Your task to perform on an android device: uninstall "Adobe Express: Graphic Design" Image 0: 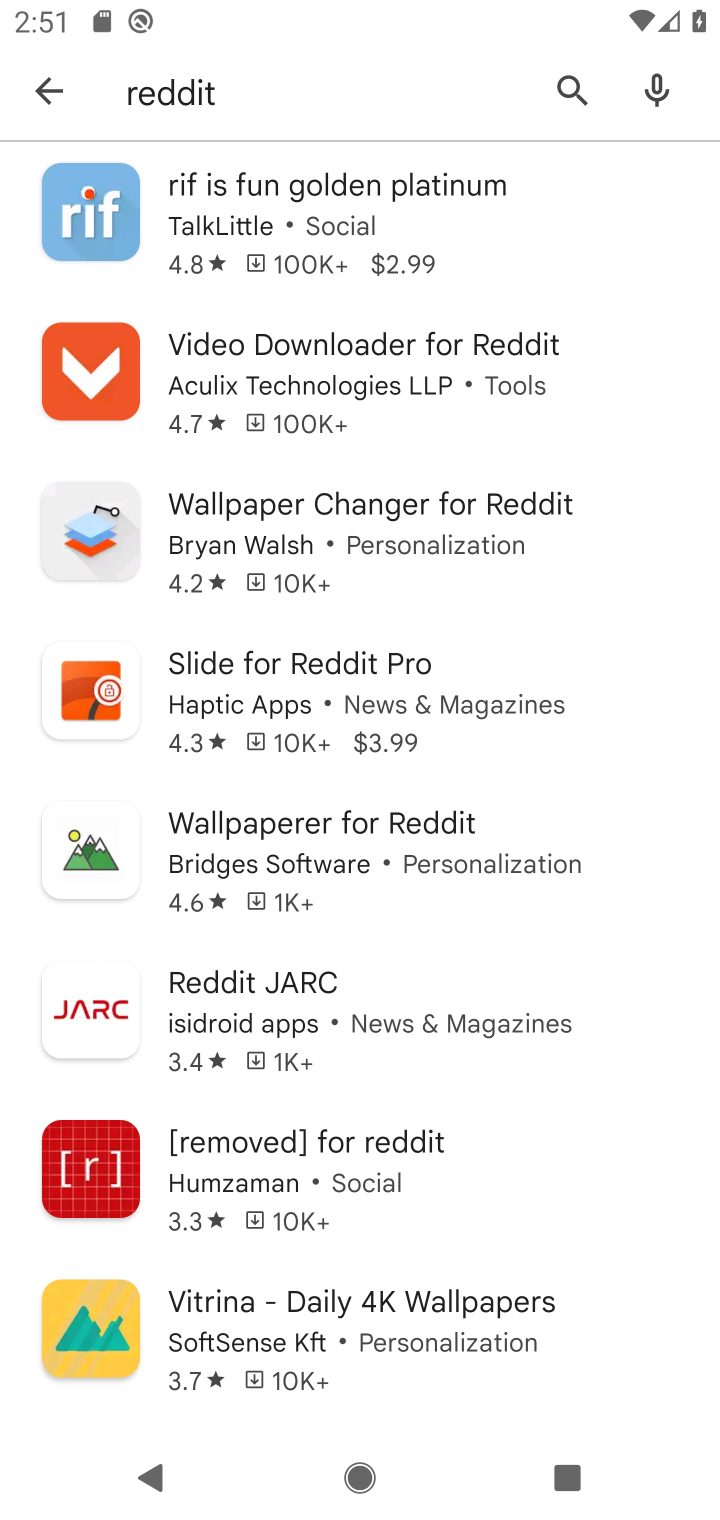
Step 0: drag from (438, 1499) to (561, 1472)
Your task to perform on an android device: uninstall "Adobe Express: Graphic Design" Image 1: 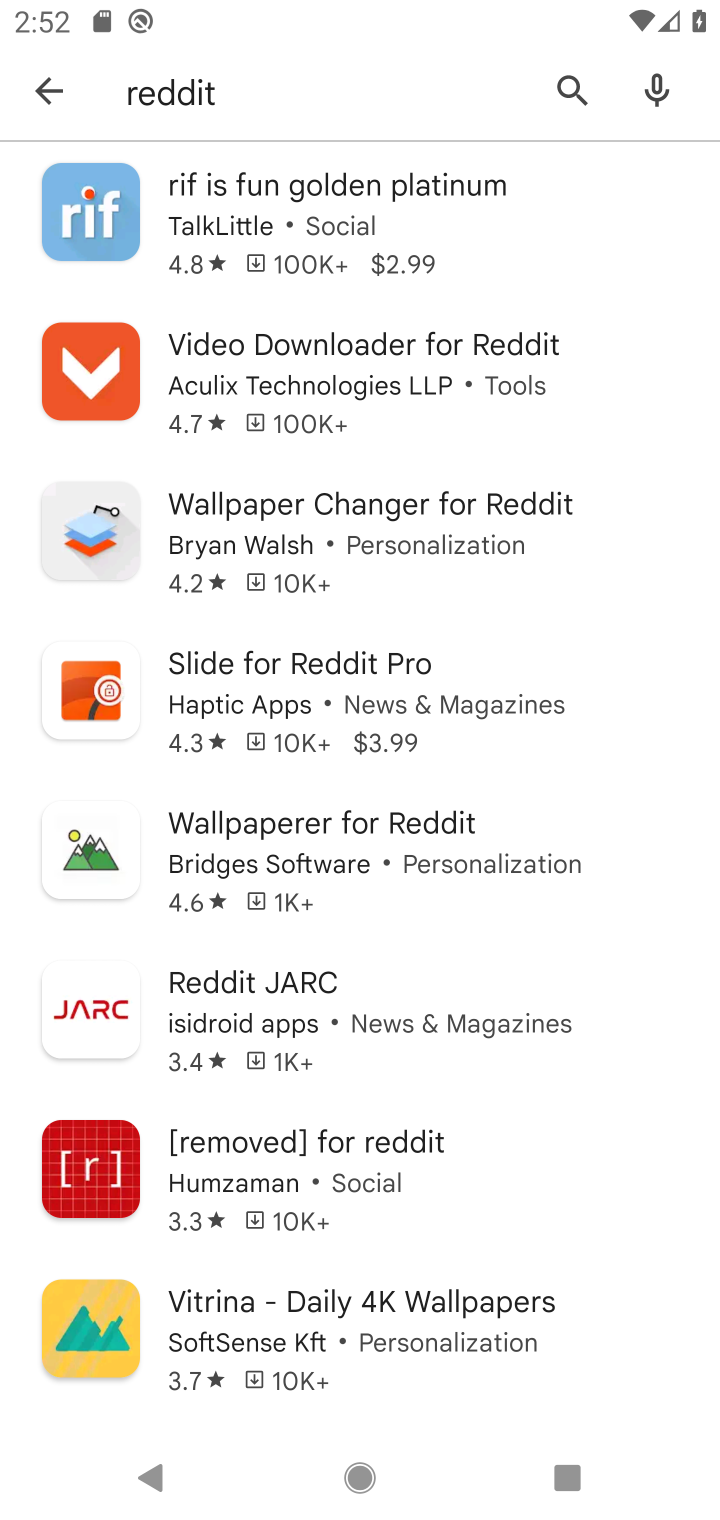
Step 1: click (573, 90)
Your task to perform on an android device: uninstall "Adobe Express: Graphic Design" Image 2: 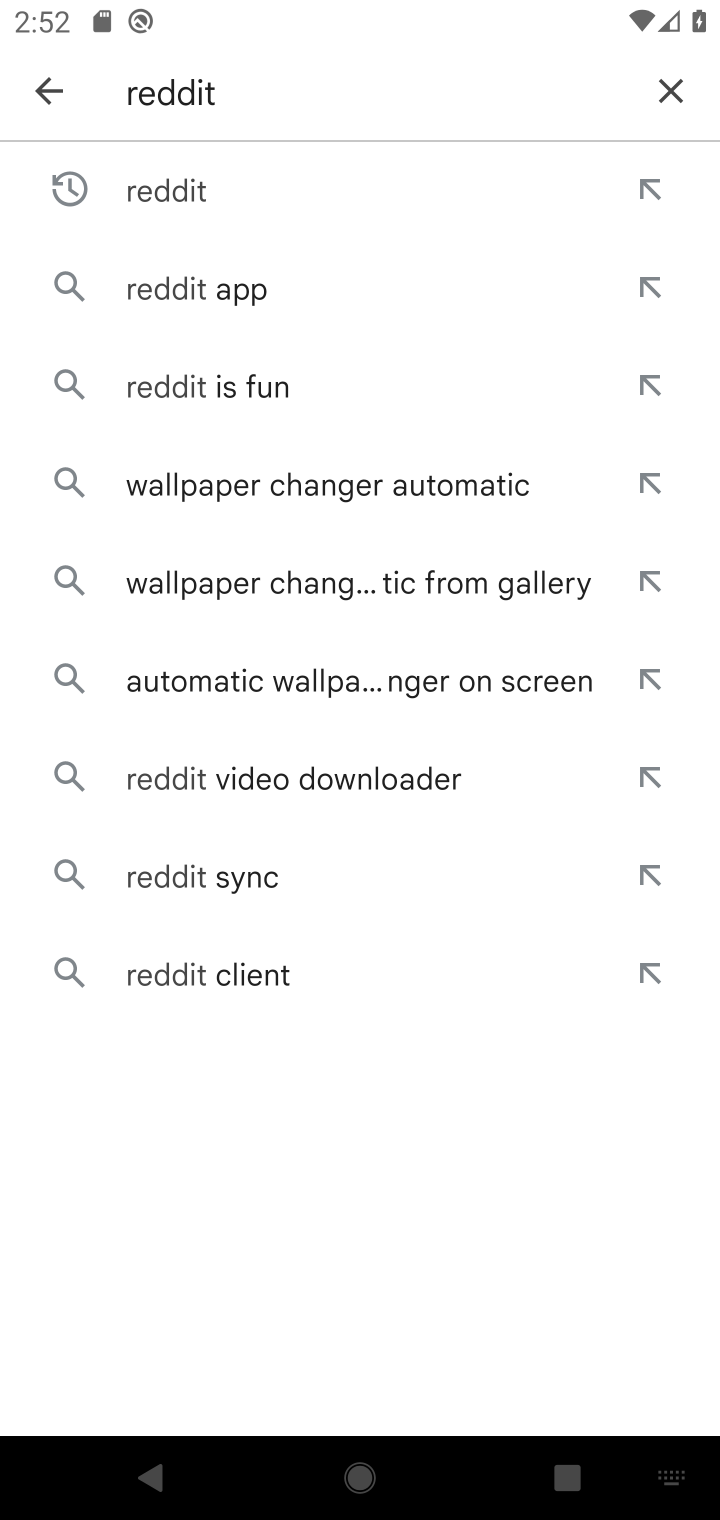
Step 2: click (654, 95)
Your task to perform on an android device: uninstall "Adobe Express: Graphic Design" Image 3: 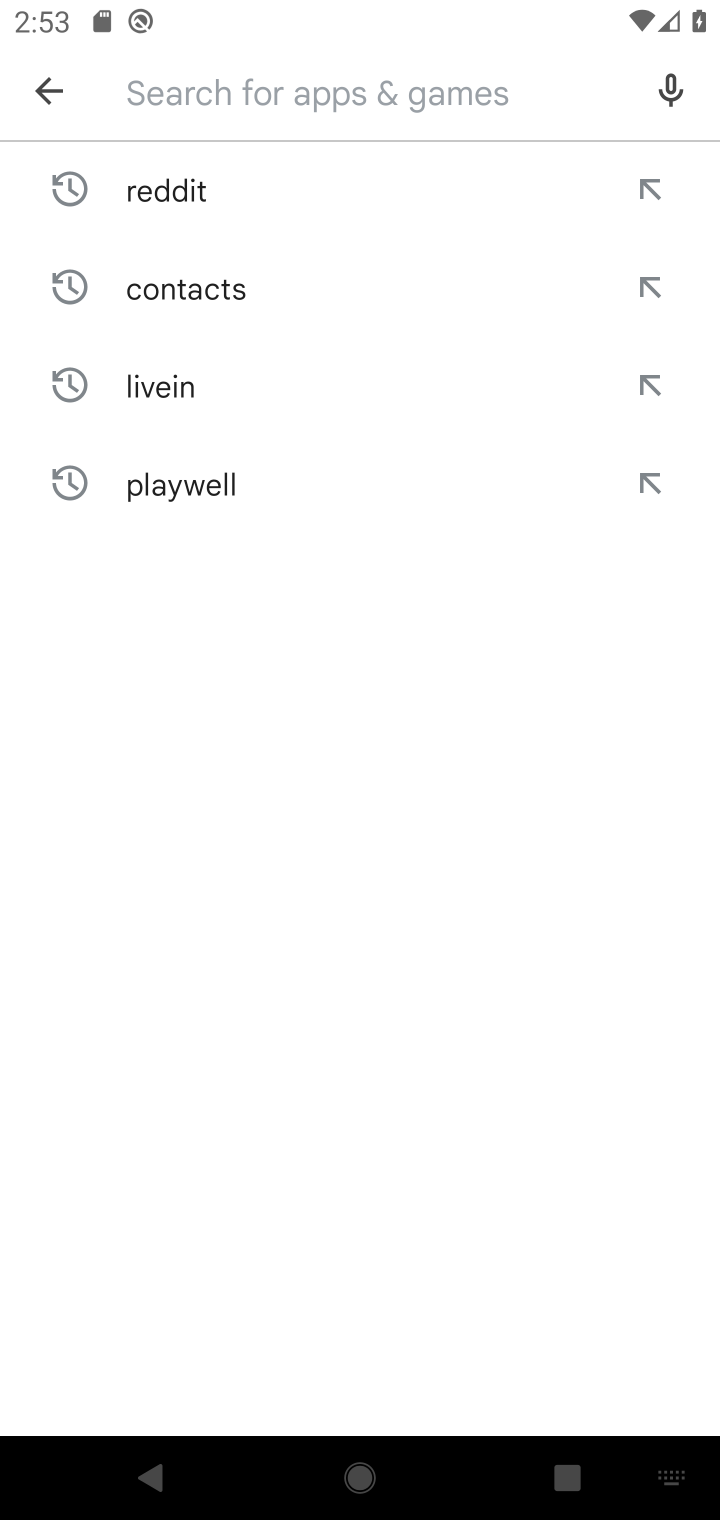
Step 3: type "Adobe Express Graphic Design"
Your task to perform on an android device: uninstall "Adobe Express: Graphic Design" Image 4: 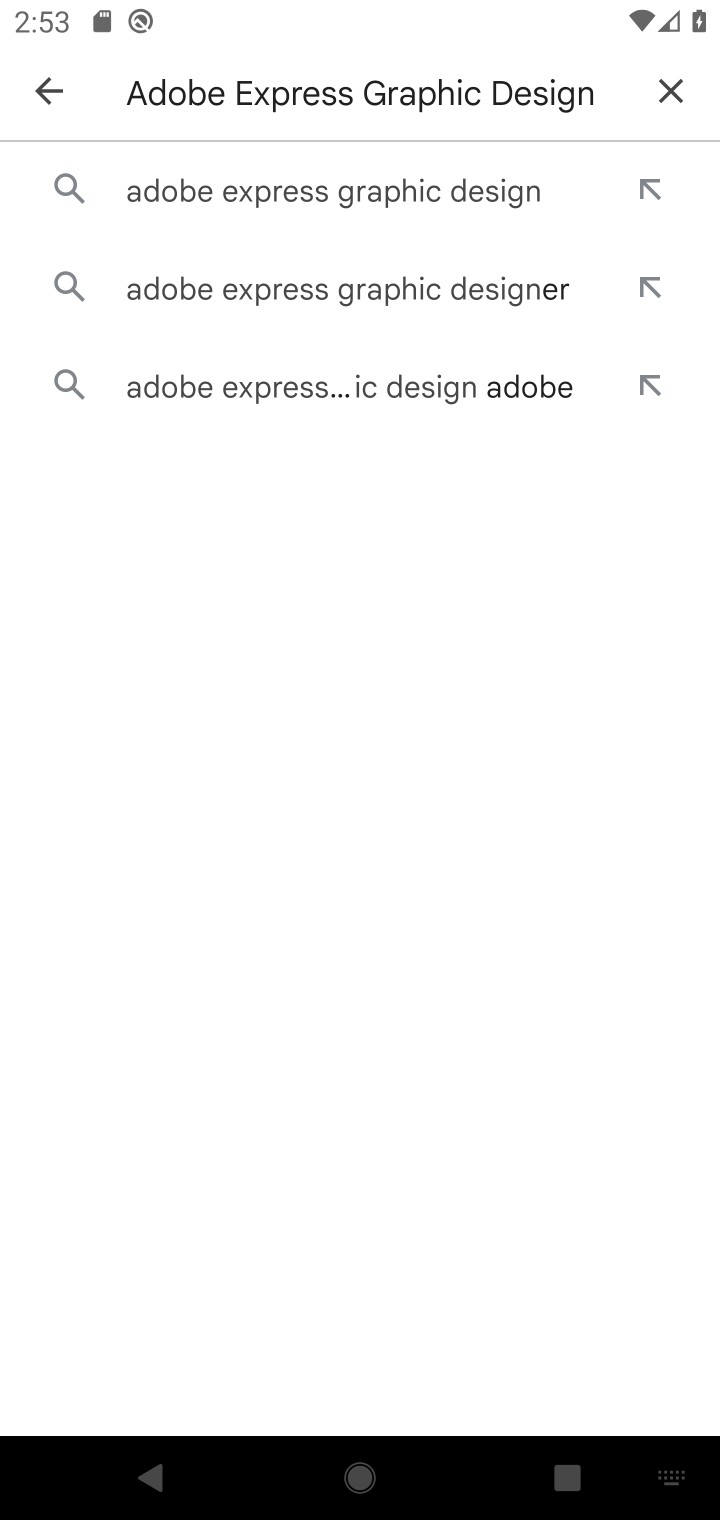
Step 4: click (162, 189)
Your task to perform on an android device: uninstall "Adobe Express: Graphic Design" Image 5: 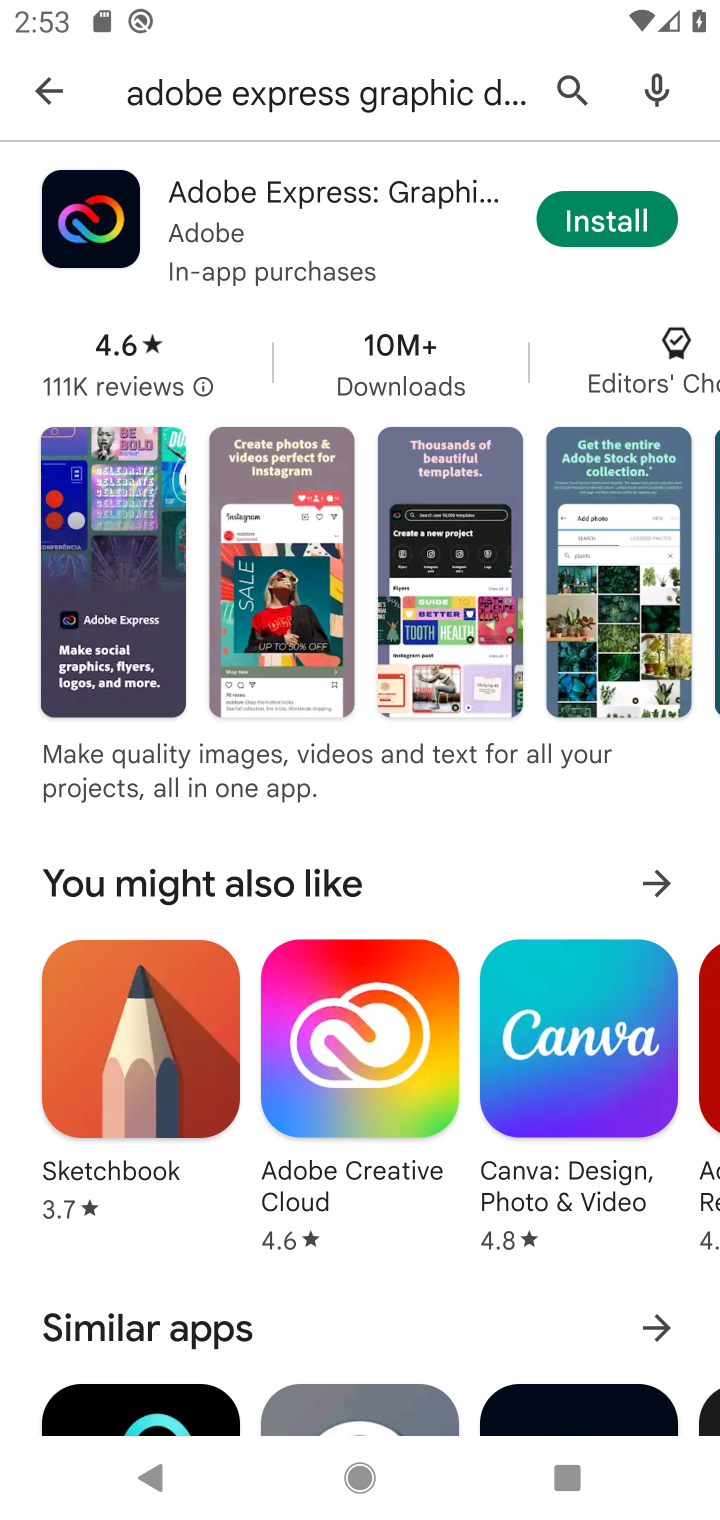
Step 5: click (186, 177)
Your task to perform on an android device: uninstall "Adobe Express: Graphic Design" Image 6: 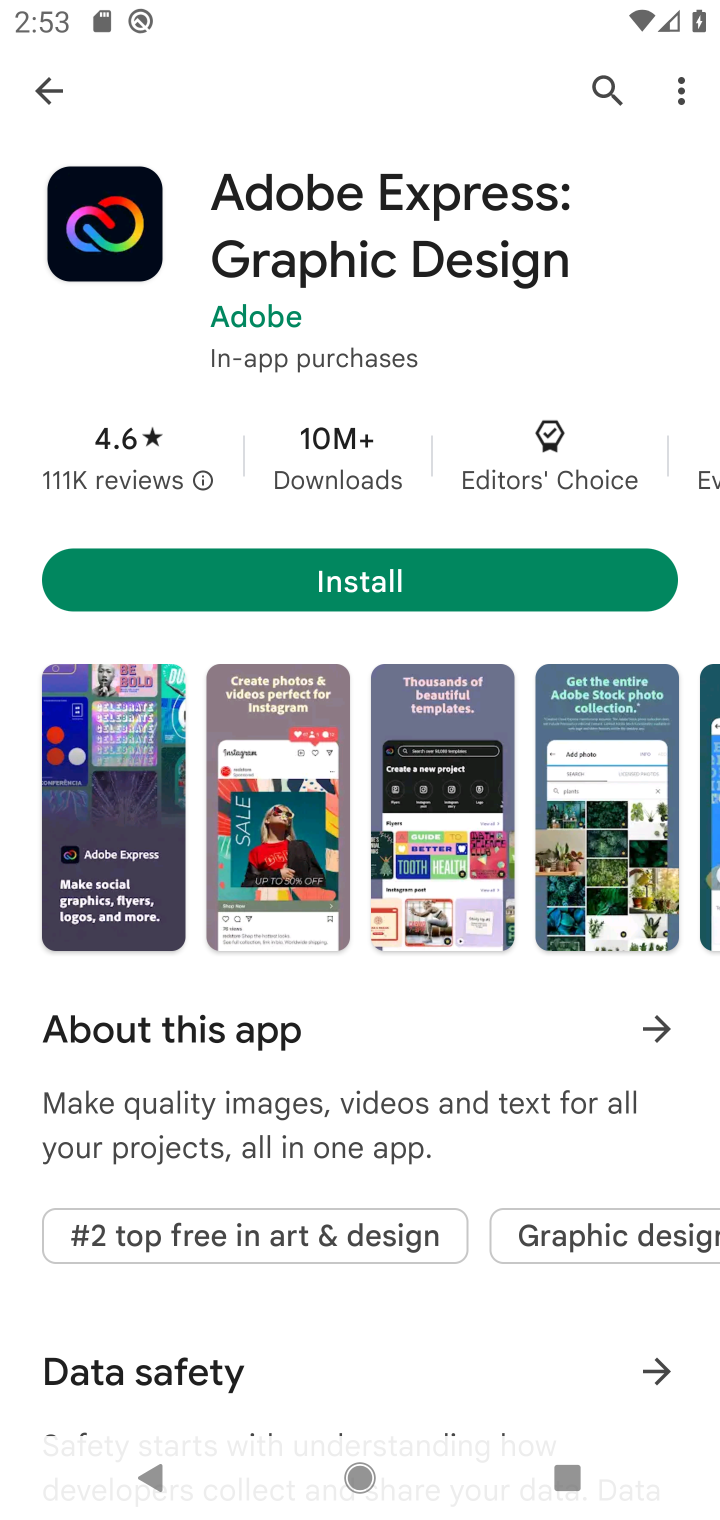
Step 6: task complete